Your task to perform on an android device: Search for pizza restaurants on Maps Image 0: 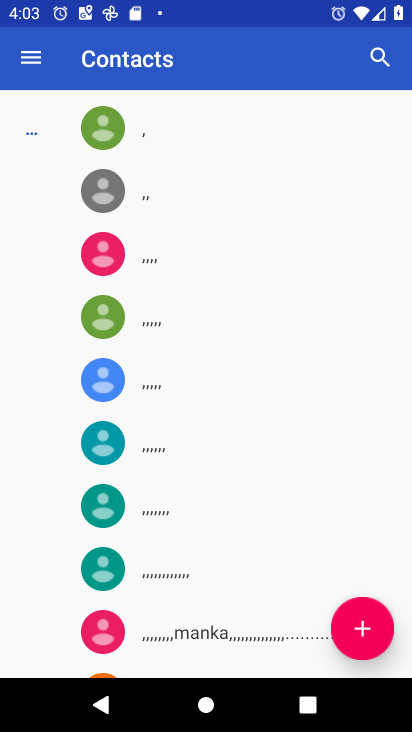
Step 0: press home button
Your task to perform on an android device: Search for pizza restaurants on Maps Image 1: 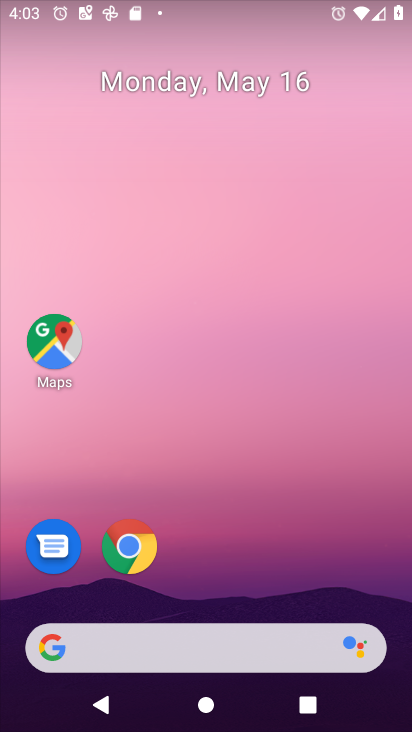
Step 1: drag from (349, 569) to (371, 148)
Your task to perform on an android device: Search for pizza restaurants on Maps Image 2: 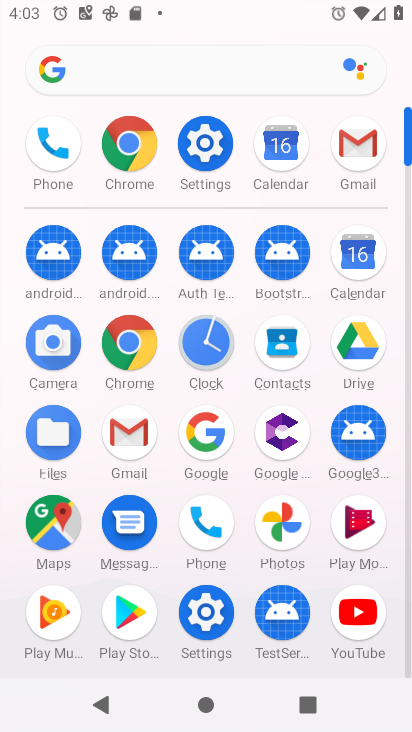
Step 2: click (49, 533)
Your task to perform on an android device: Search for pizza restaurants on Maps Image 3: 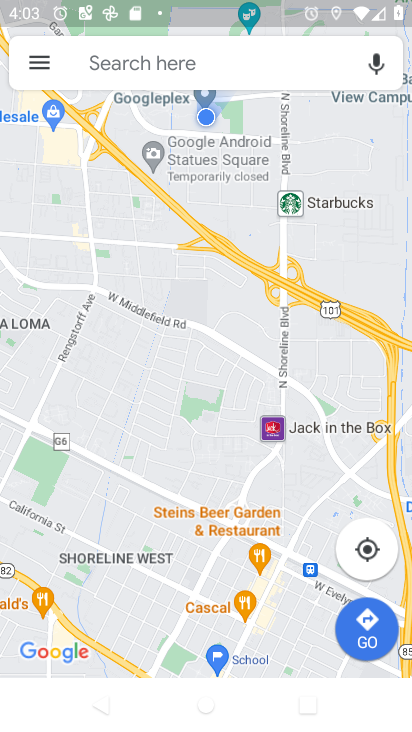
Step 3: click (179, 69)
Your task to perform on an android device: Search for pizza restaurants on Maps Image 4: 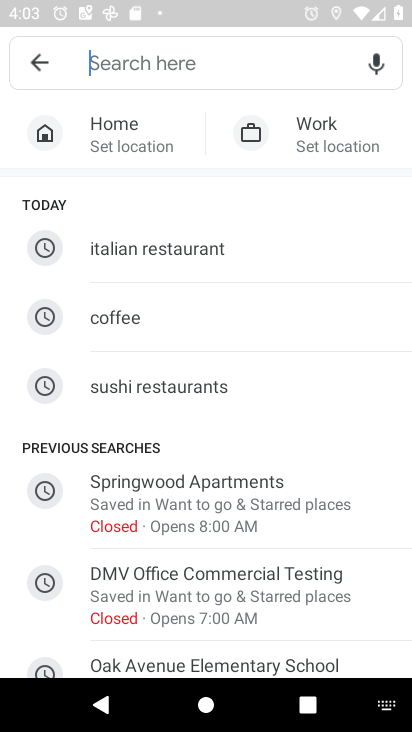
Step 4: type "pizzaa restaurants"
Your task to perform on an android device: Search for pizza restaurants on Maps Image 5: 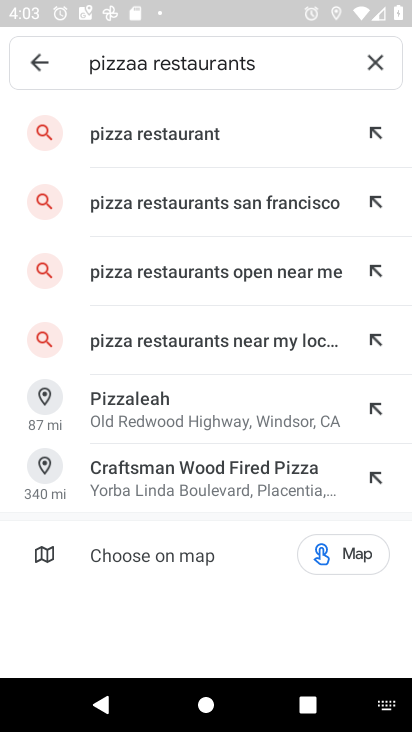
Step 5: click (232, 132)
Your task to perform on an android device: Search for pizza restaurants on Maps Image 6: 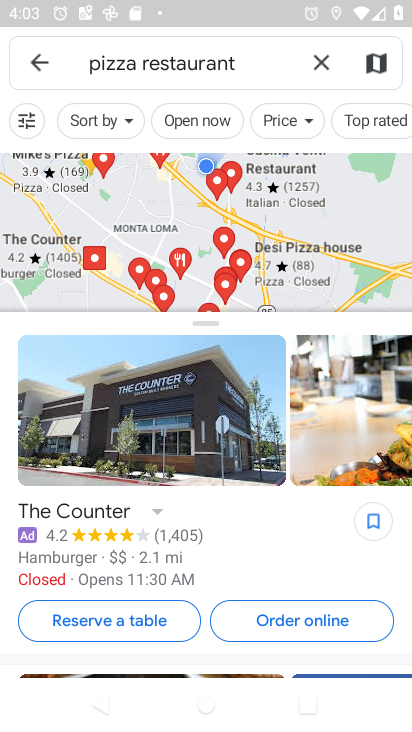
Step 6: task complete